Your task to perform on an android device: Open the phone app and click the voicemail tab. Image 0: 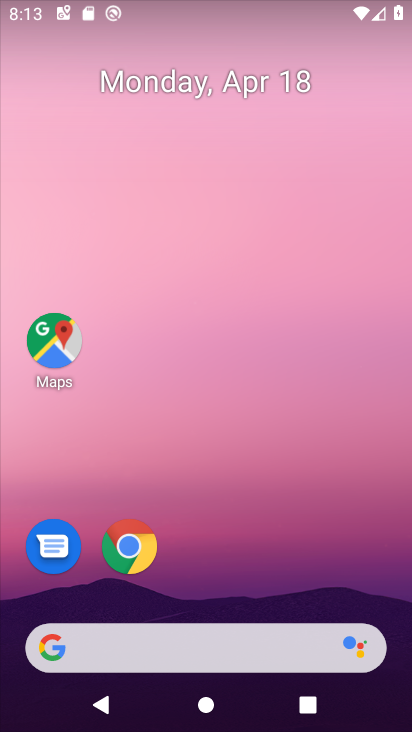
Step 0: drag from (384, 502) to (286, 231)
Your task to perform on an android device: Open the phone app and click the voicemail tab. Image 1: 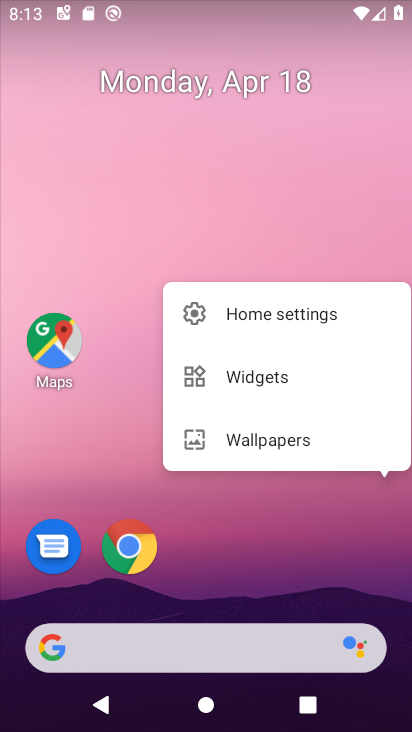
Step 1: click (355, 618)
Your task to perform on an android device: Open the phone app and click the voicemail tab. Image 2: 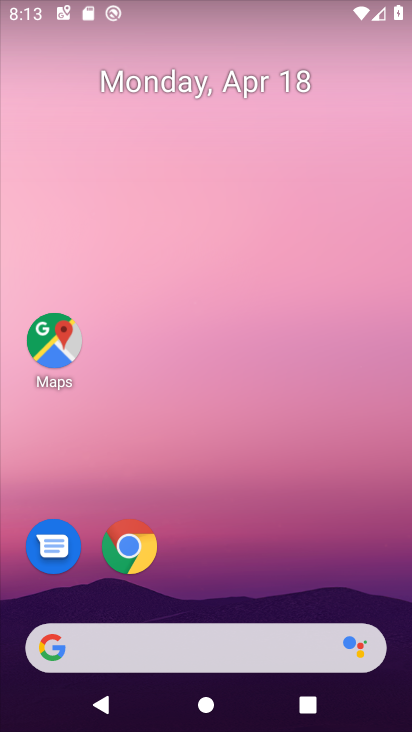
Step 2: drag from (357, 609) to (332, 224)
Your task to perform on an android device: Open the phone app and click the voicemail tab. Image 3: 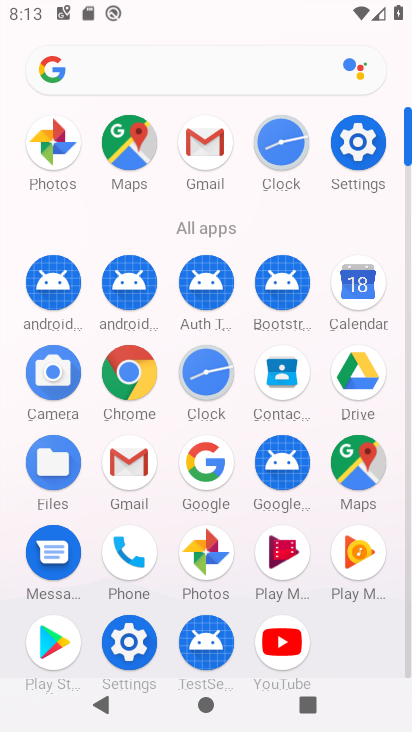
Step 3: click (143, 552)
Your task to perform on an android device: Open the phone app and click the voicemail tab. Image 4: 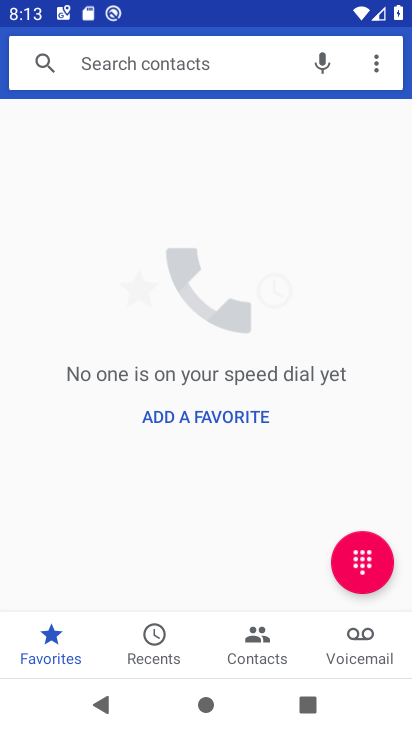
Step 4: click (364, 653)
Your task to perform on an android device: Open the phone app and click the voicemail tab. Image 5: 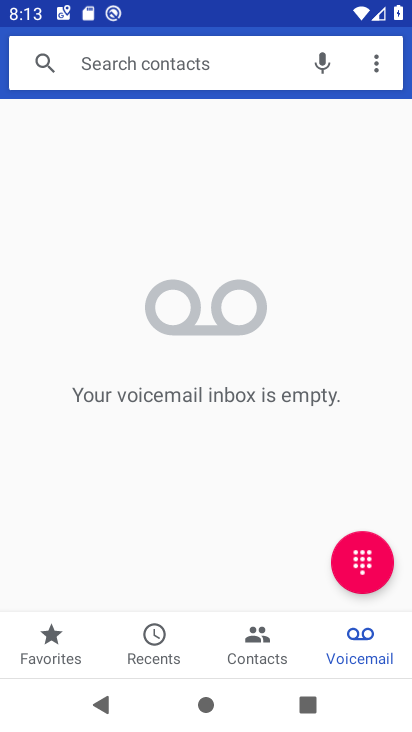
Step 5: task complete